Your task to perform on an android device: turn on priority inbox in the gmail app Image 0: 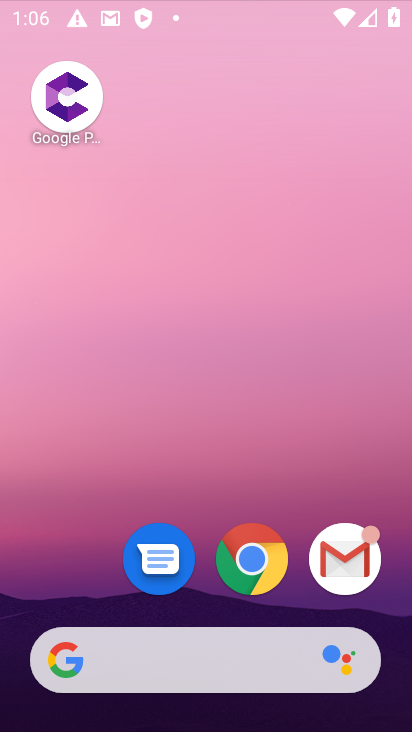
Step 0: press home button
Your task to perform on an android device: turn on priority inbox in the gmail app Image 1: 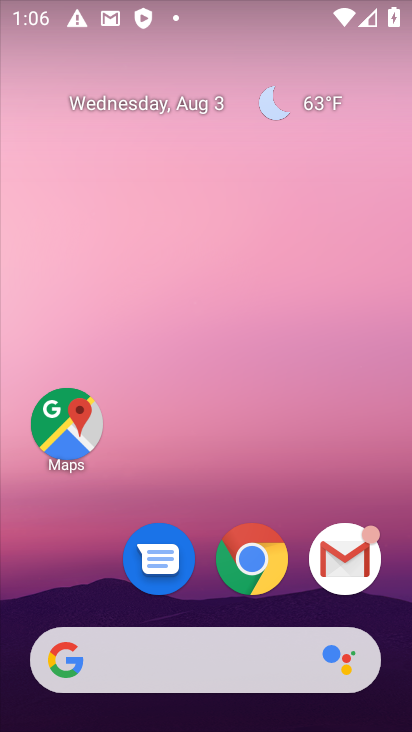
Step 1: click (338, 549)
Your task to perform on an android device: turn on priority inbox in the gmail app Image 2: 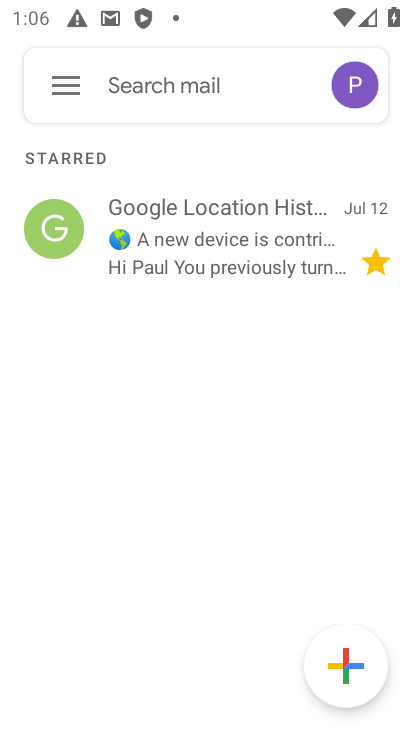
Step 2: click (65, 73)
Your task to perform on an android device: turn on priority inbox in the gmail app Image 3: 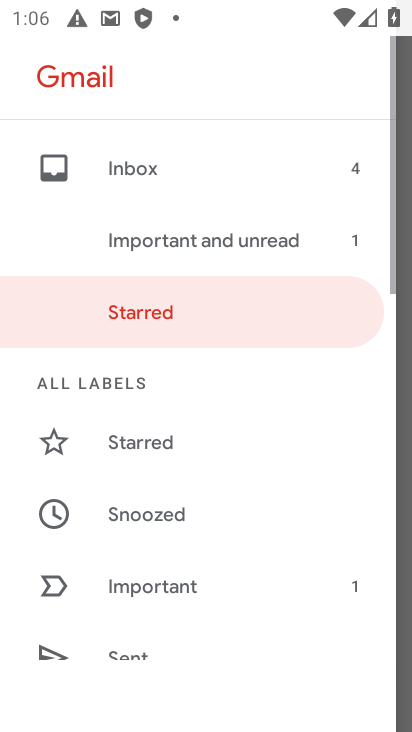
Step 3: drag from (117, 616) to (205, 350)
Your task to perform on an android device: turn on priority inbox in the gmail app Image 4: 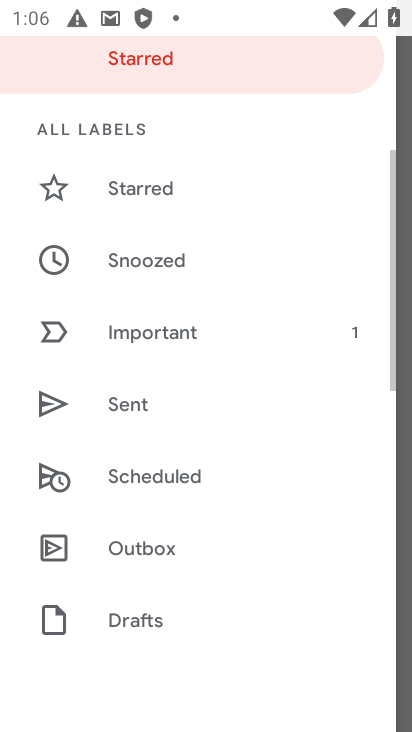
Step 4: drag from (145, 594) to (188, 346)
Your task to perform on an android device: turn on priority inbox in the gmail app Image 5: 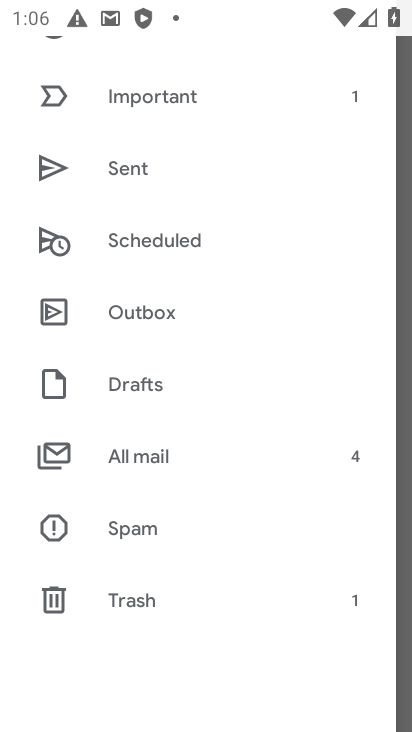
Step 5: drag from (171, 595) to (218, 484)
Your task to perform on an android device: turn on priority inbox in the gmail app Image 6: 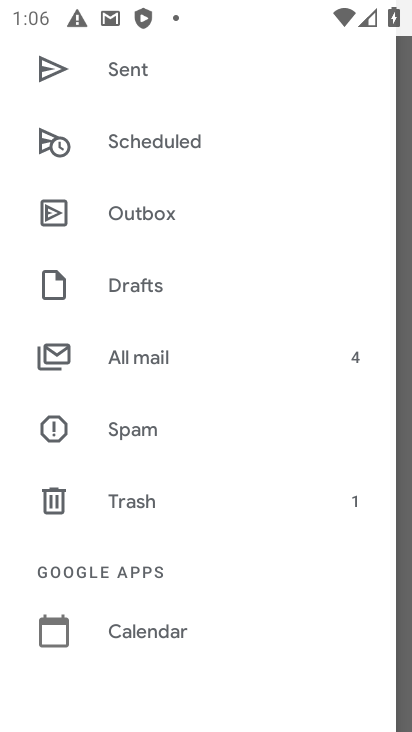
Step 6: drag from (139, 622) to (172, 367)
Your task to perform on an android device: turn on priority inbox in the gmail app Image 7: 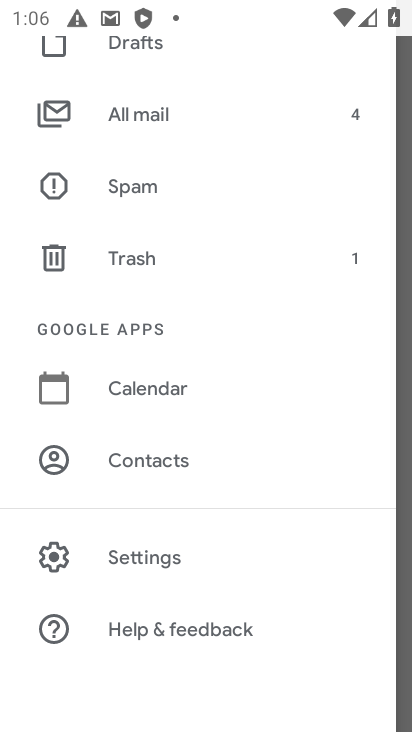
Step 7: click (140, 545)
Your task to perform on an android device: turn on priority inbox in the gmail app Image 8: 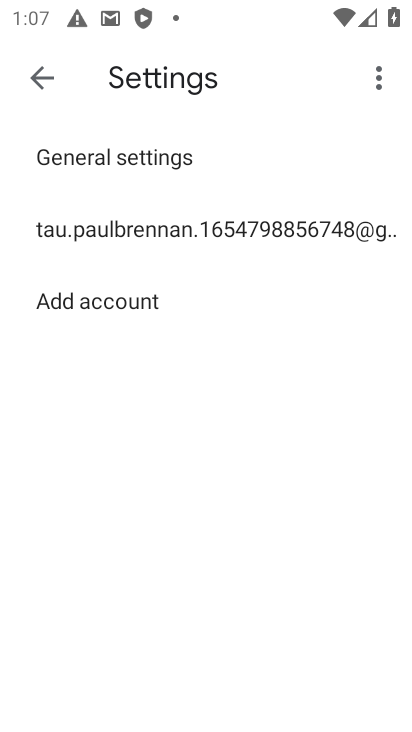
Step 8: click (130, 222)
Your task to perform on an android device: turn on priority inbox in the gmail app Image 9: 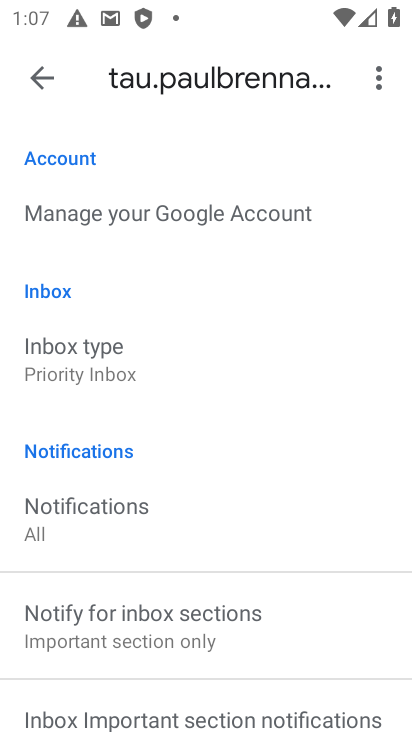
Step 9: click (70, 367)
Your task to perform on an android device: turn on priority inbox in the gmail app Image 10: 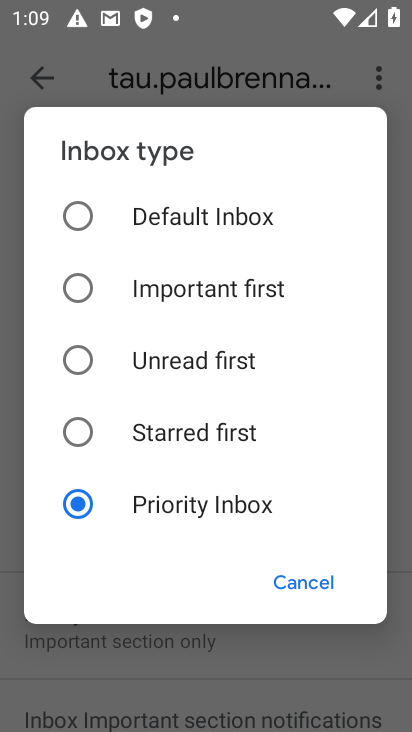
Step 10: task complete